Your task to perform on an android device: Show me recent news Image 0: 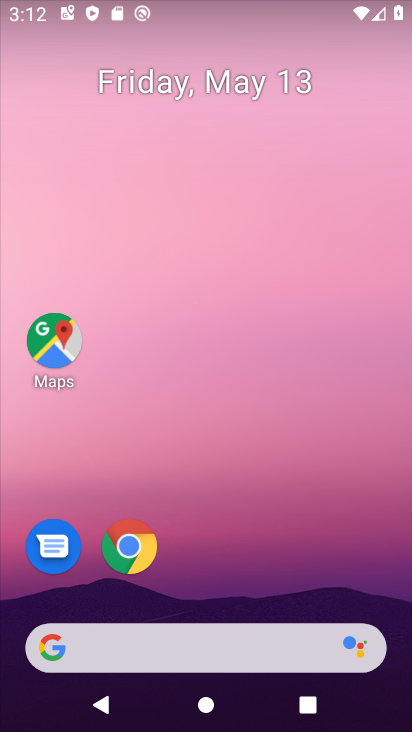
Step 0: drag from (250, 609) to (223, 299)
Your task to perform on an android device: Show me recent news Image 1: 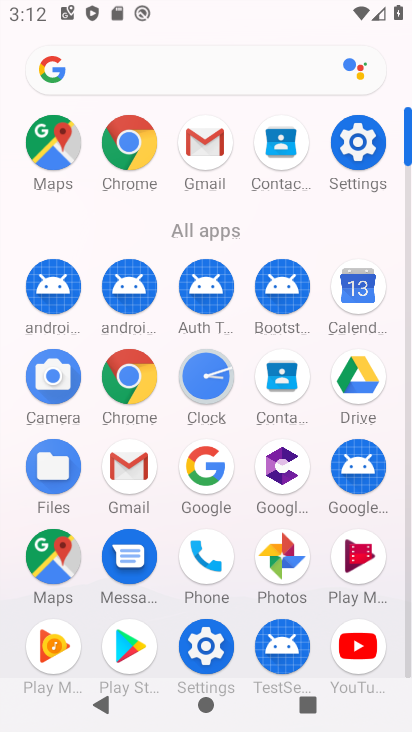
Step 1: click (212, 477)
Your task to perform on an android device: Show me recent news Image 2: 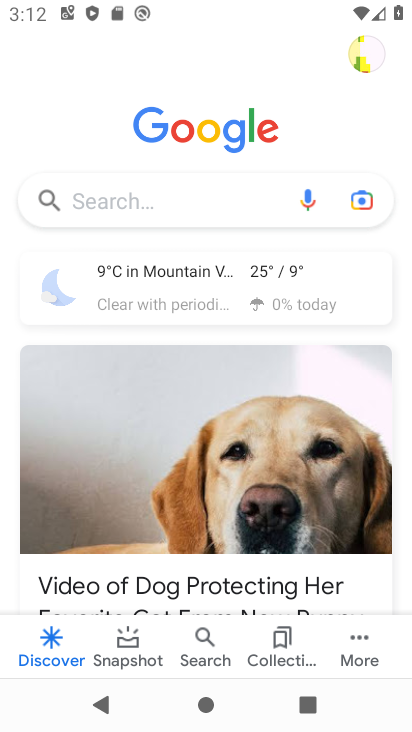
Step 2: task complete